Your task to perform on an android device: check battery use Image 0: 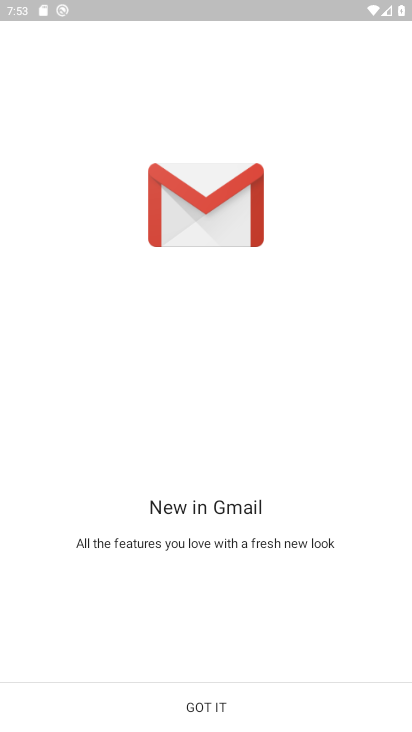
Step 0: press home button
Your task to perform on an android device: check battery use Image 1: 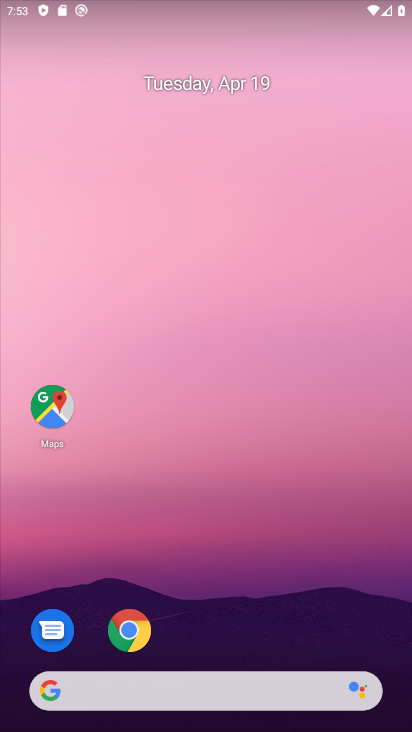
Step 1: drag from (193, 652) to (276, 53)
Your task to perform on an android device: check battery use Image 2: 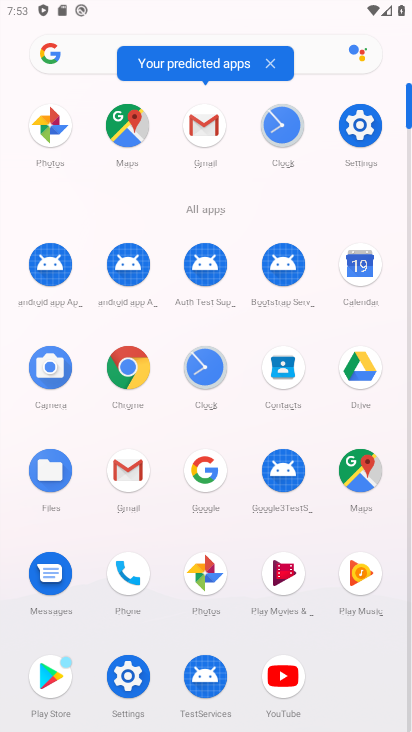
Step 2: click (354, 124)
Your task to perform on an android device: check battery use Image 3: 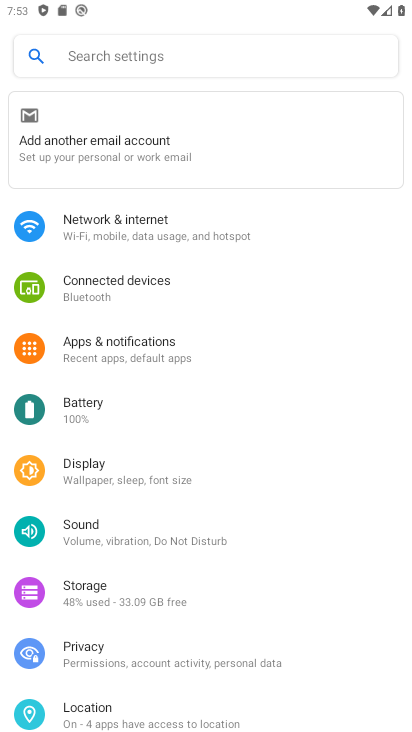
Step 3: click (113, 412)
Your task to perform on an android device: check battery use Image 4: 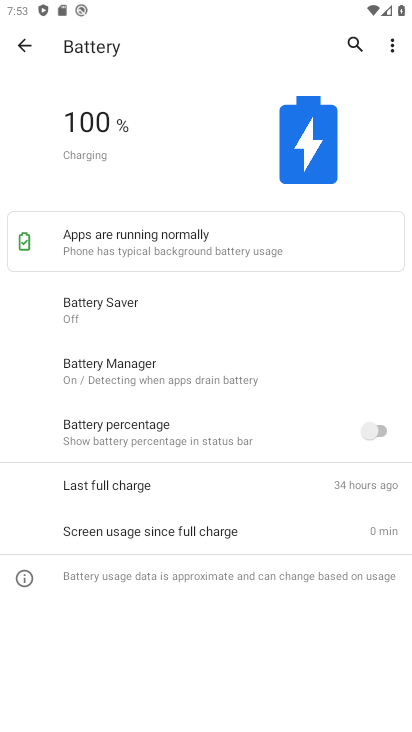
Step 4: click (170, 536)
Your task to perform on an android device: check battery use Image 5: 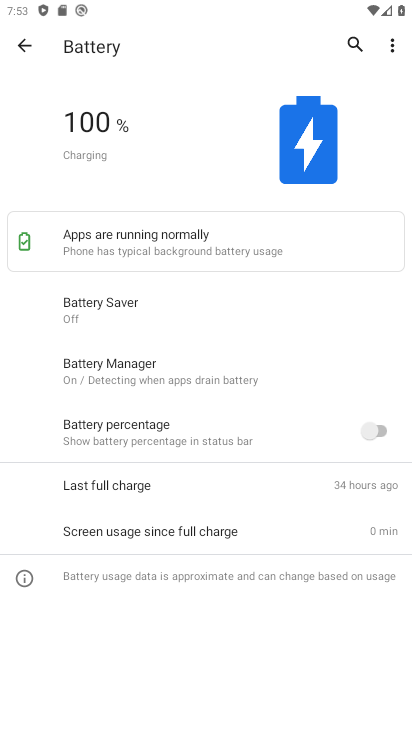
Step 5: task complete